Your task to perform on an android device: turn on airplane mode Image 0: 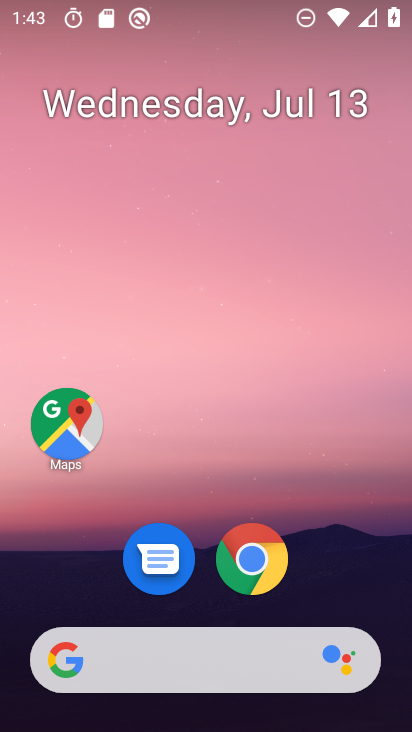
Step 0: drag from (229, 619) to (308, 205)
Your task to perform on an android device: turn on airplane mode Image 1: 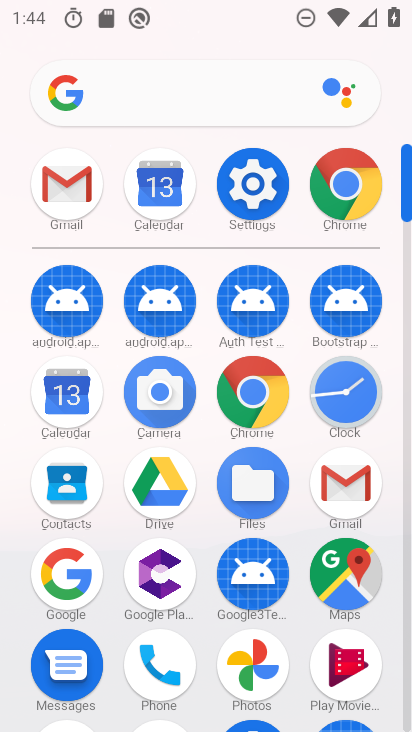
Step 1: click (250, 210)
Your task to perform on an android device: turn on airplane mode Image 2: 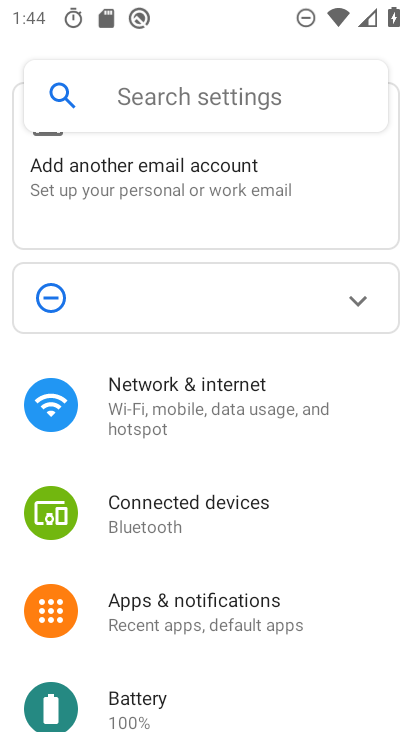
Step 2: click (187, 417)
Your task to perform on an android device: turn on airplane mode Image 3: 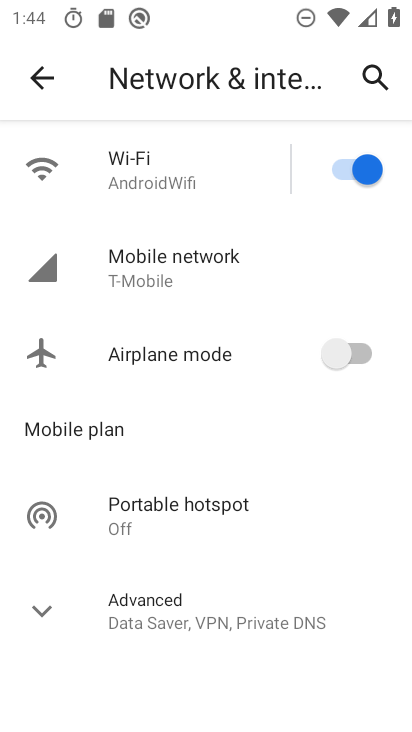
Step 3: click (173, 368)
Your task to perform on an android device: turn on airplane mode Image 4: 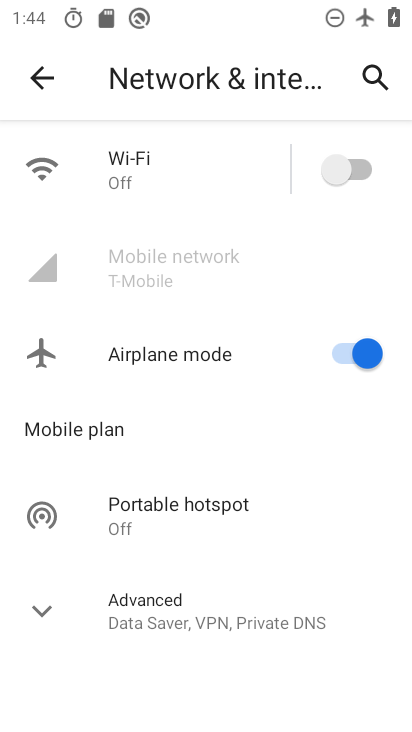
Step 4: task complete